Your task to perform on an android device: toggle translation in the chrome app Image 0: 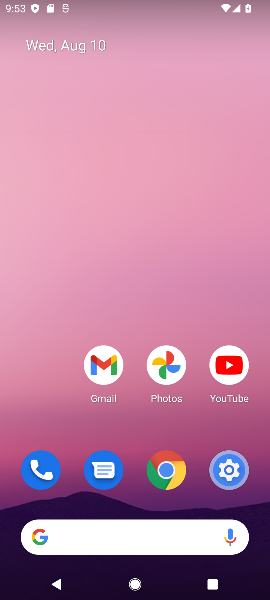
Step 0: click (176, 465)
Your task to perform on an android device: toggle translation in the chrome app Image 1: 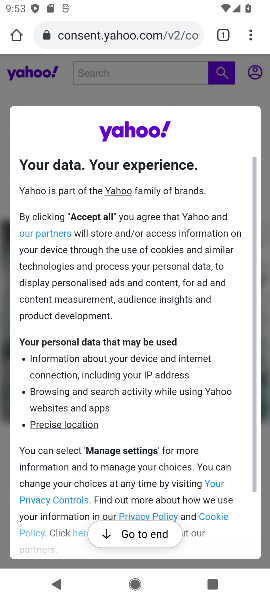
Step 1: click (261, 43)
Your task to perform on an android device: toggle translation in the chrome app Image 2: 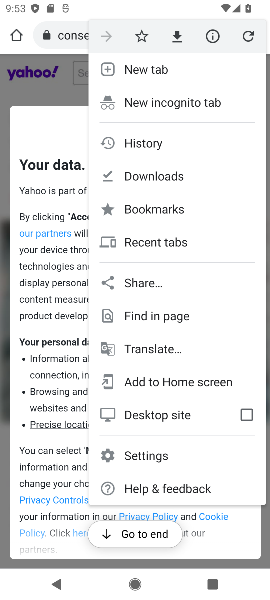
Step 2: click (141, 467)
Your task to perform on an android device: toggle translation in the chrome app Image 3: 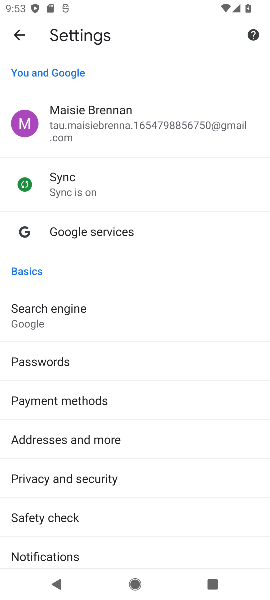
Step 3: drag from (106, 501) to (152, 92)
Your task to perform on an android device: toggle translation in the chrome app Image 4: 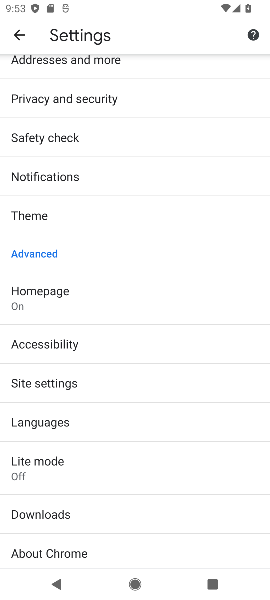
Step 4: click (92, 427)
Your task to perform on an android device: toggle translation in the chrome app Image 5: 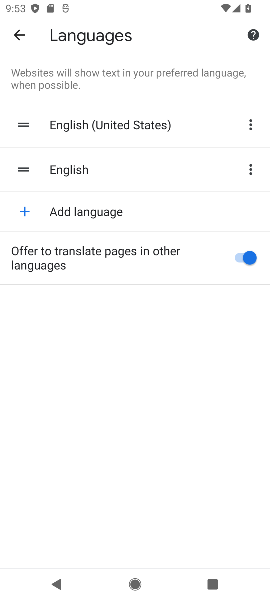
Step 5: click (250, 255)
Your task to perform on an android device: toggle translation in the chrome app Image 6: 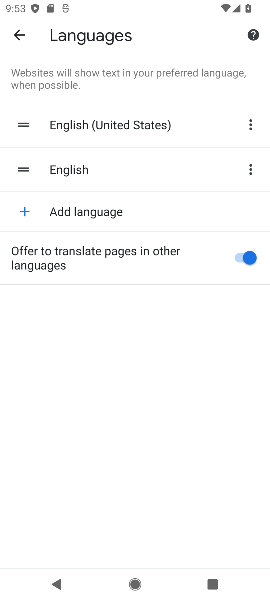
Step 6: click (250, 255)
Your task to perform on an android device: toggle translation in the chrome app Image 7: 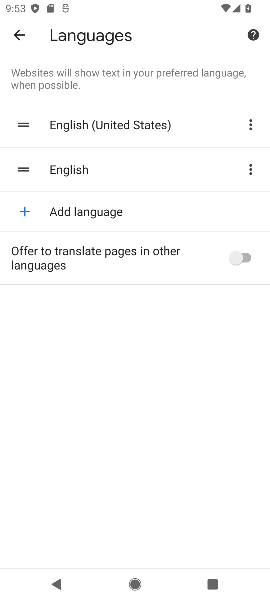
Step 7: click (250, 255)
Your task to perform on an android device: toggle translation in the chrome app Image 8: 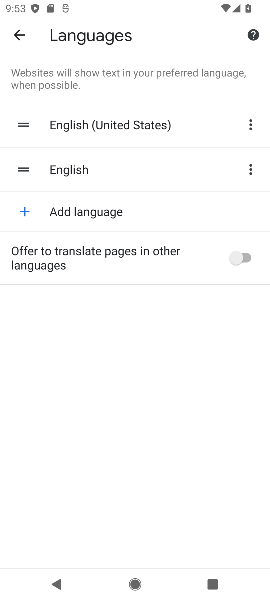
Step 8: click (250, 255)
Your task to perform on an android device: toggle translation in the chrome app Image 9: 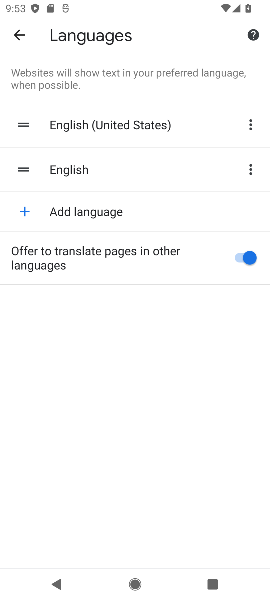
Step 9: task complete